Your task to perform on an android device: empty trash in the gmail app Image 0: 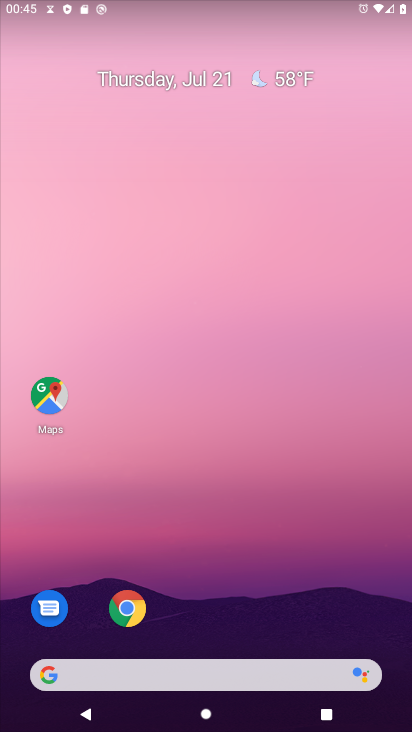
Step 0: press home button
Your task to perform on an android device: empty trash in the gmail app Image 1: 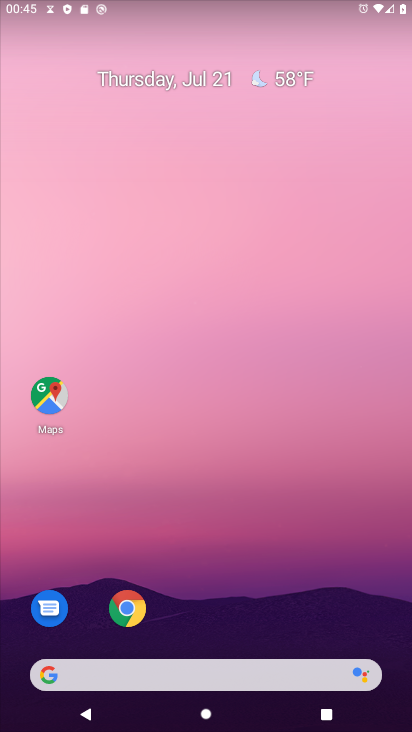
Step 1: drag from (227, 645) to (235, 72)
Your task to perform on an android device: empty trash in the gmail app Image 2: 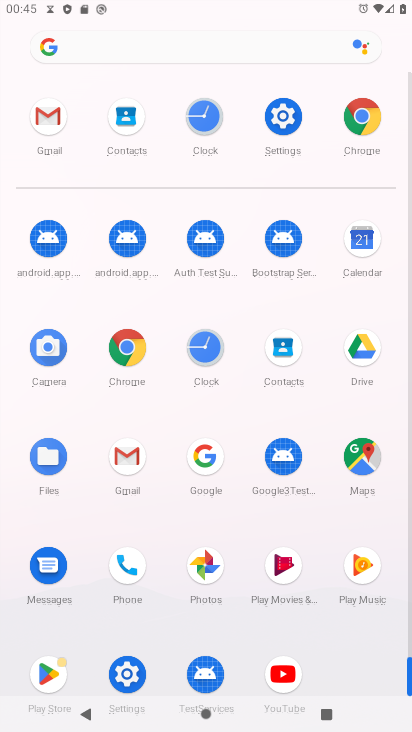
Step 2: click (122, 452)
Your task to perform on an android device: empty trash in the gmail app Image 3: 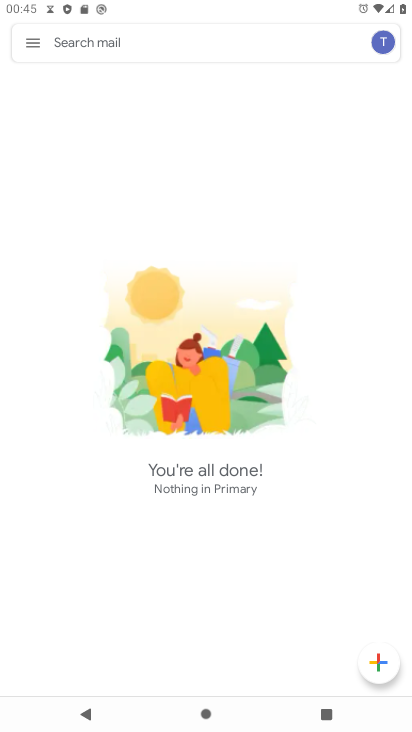
Step 3: click (31, 39)
Your task to perform on an android device: empty trash in the gmail app Image 4: 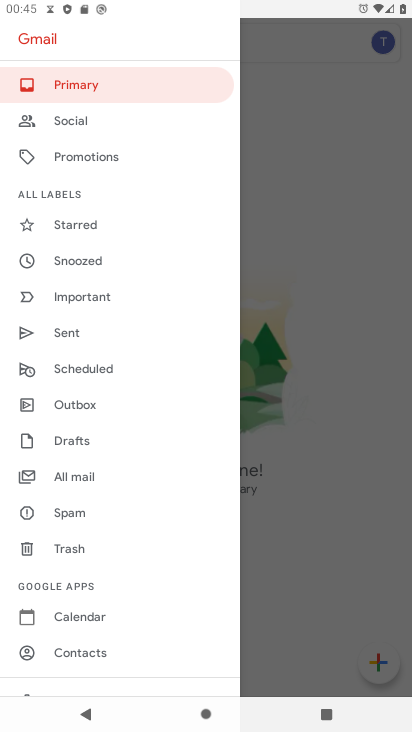
Step 4: click (94, 541)
Your task to perform on an android device: empty trash in the gmail app Image 5: 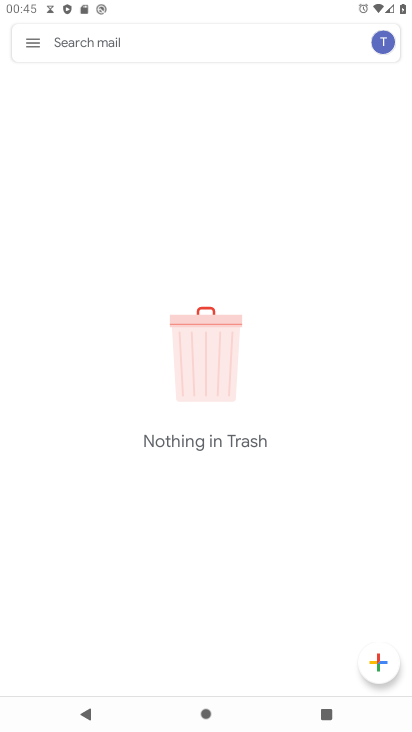
Step 5: task complete